Your task to perform on an android device: manage bookmarks in the chrome app Image 0: 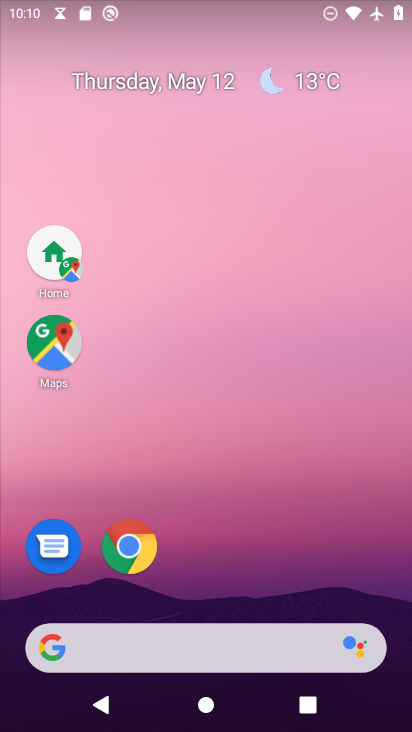
Step 0: drag from (152, 649) to (279, 246)
Your task to perform on an android device: manage bookmarks in the chrome app Image 1: 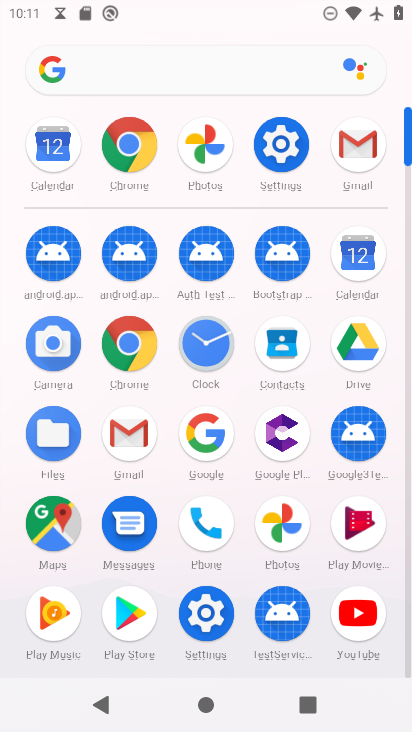
Step 1: click (129, 164)
Your task to perform on an android device: manage bookmarks in the chrome app Image 2: 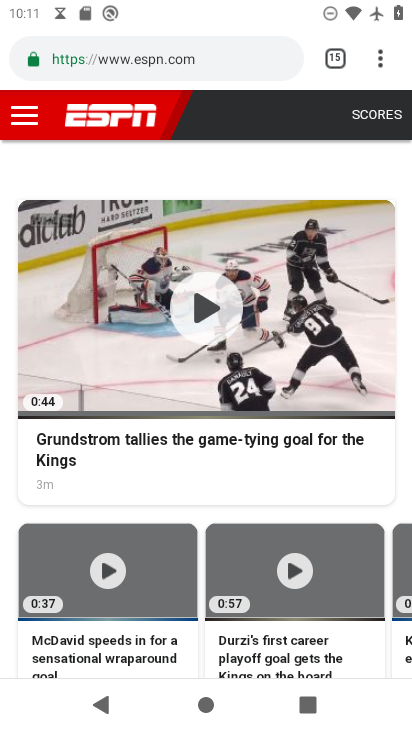
Step 2: drag from (376, 60) to (218, 218)
Your task to perform on an android device: manage bookmarks in the chrome app Image 3: 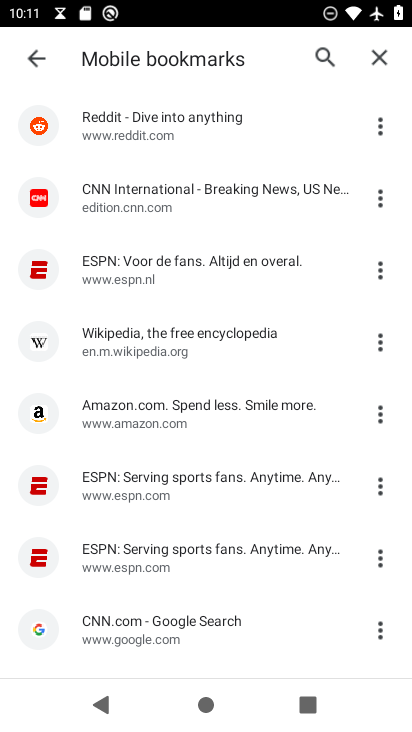
Step 3: click (381, 127)
Your task to perform on an android device: manage bookmarks in the chrome app Image 4: 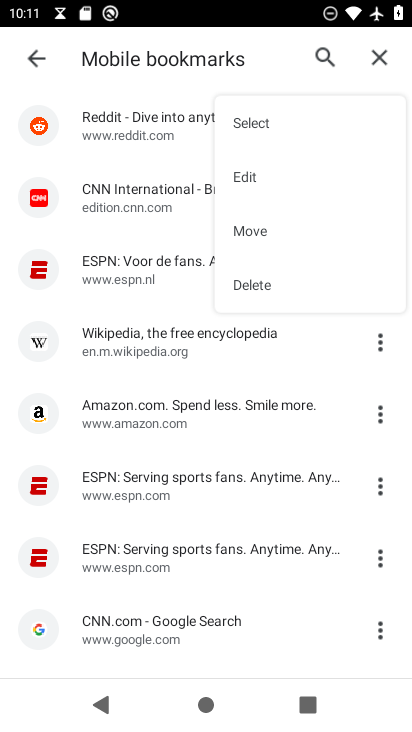
Step 4: click (254, 286)
Your task to perform on an android device: manage bookmarks in the chrome app Image 5: 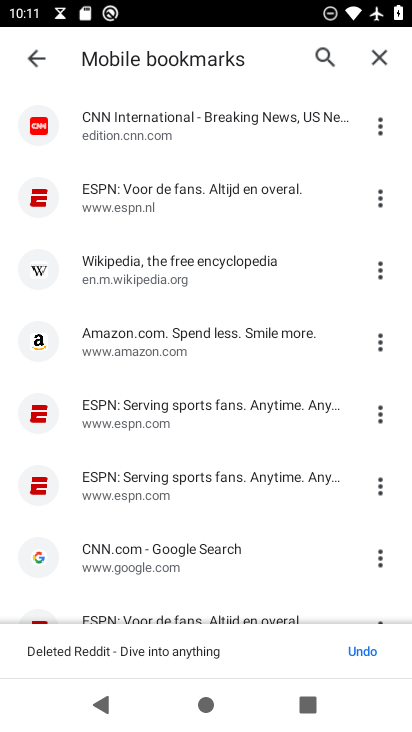
Step 5: task complete